Your task to perform on an android device: turn on sleep mode Image 0: 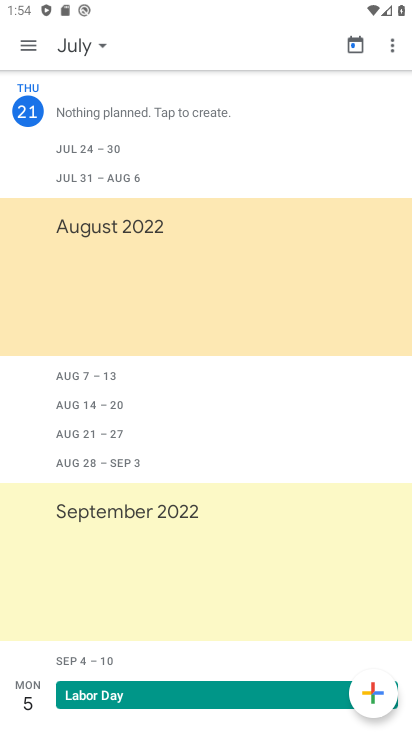
Step 0: press back button
Your task to perform on an android device: turn on sleep mode Image 1: 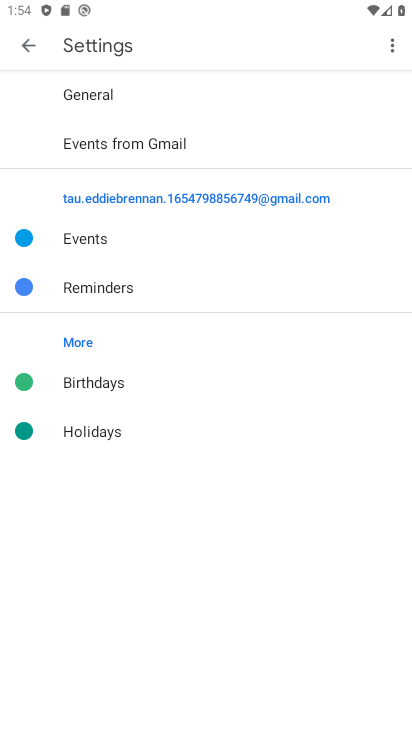
Step 1: press home button
Your task to perform on an android device: turn on sleep mode Image 2: 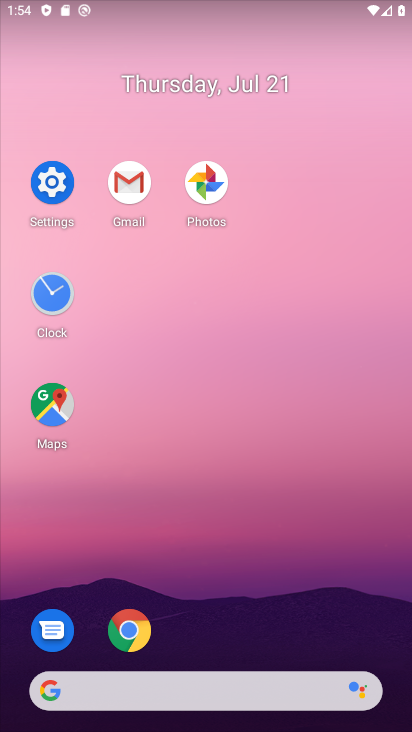
Step 2: click (60, 181)
Your task to perform on an android device: turn on sleep mode Image 3: 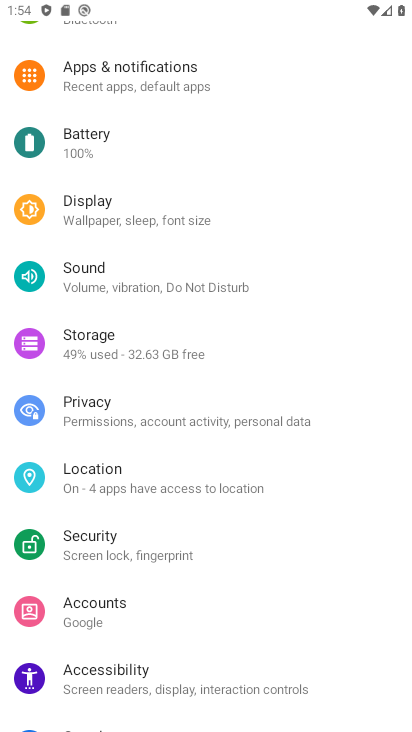
Step 3: click (179, 221)
Your task to perform on an android device: turn on sleep mode Image 4: 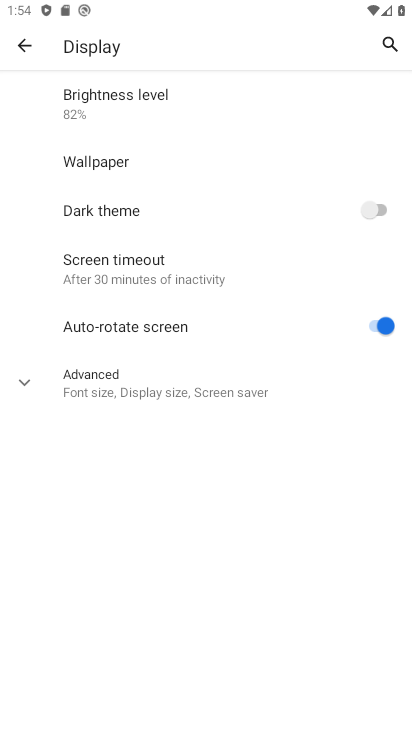
Step 4: click (187, 279)
Your task to perform on an android device: turn on sleep mode Image 5: 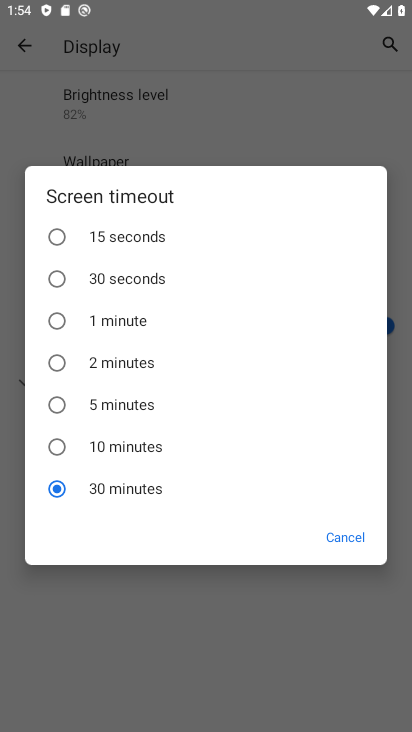
Step 5: task complete